Your task to perform on an android device: Open calendar and show me the second week of next month Image 0: 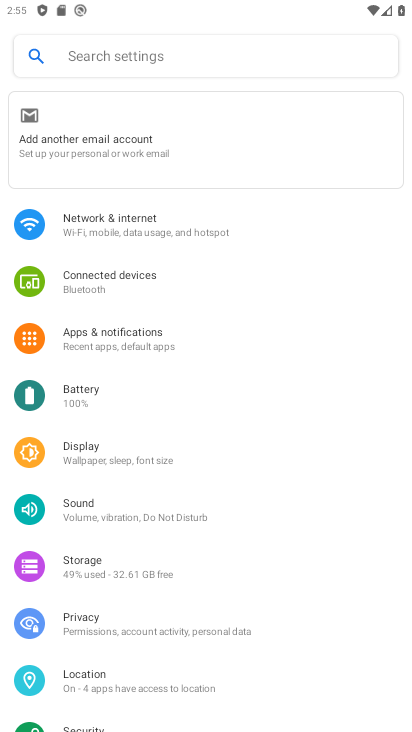
Step 0: press home button
Your task to perform on an android device: Open calendar and show me the second week of next month Image 1: 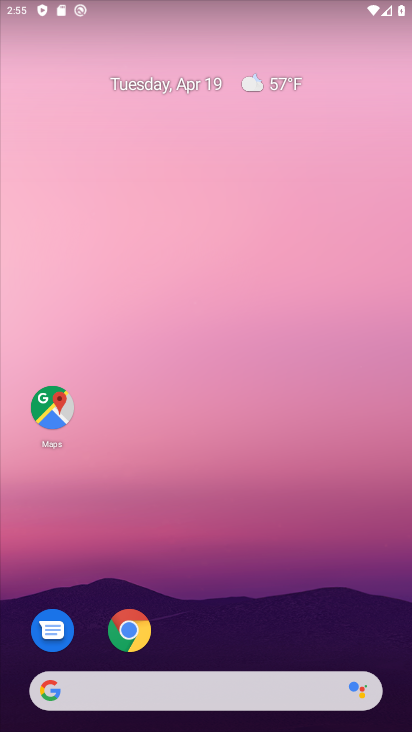
Step 1: drag from (222, 619) to (229, 203)
Your task to perform on an android device: Open calendar and show me the second week of next month Image 2: 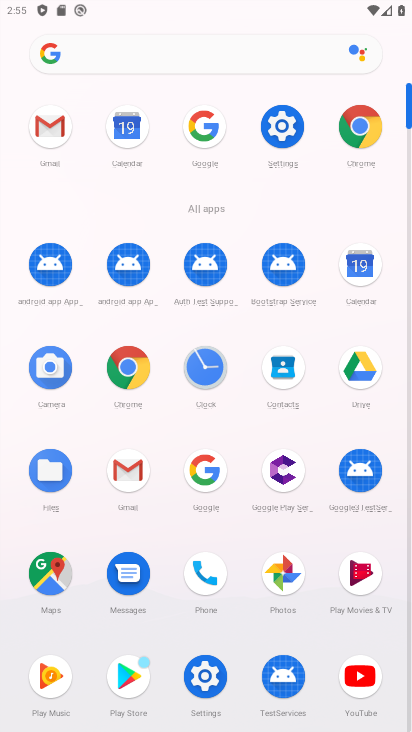
Step 2: click (124, 135)
Your task to perform on an android device: Open calendar and show me the second week of next month Image 3: 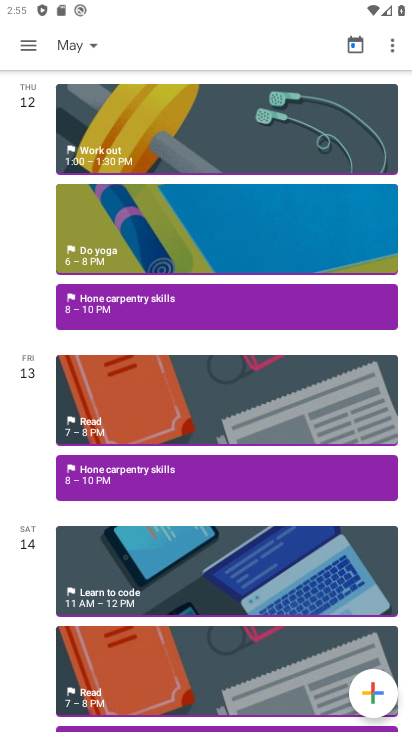
Step 3: click (86, 45)
Your task to perform on an android device: Open calendar and show me the second week of next month Image 4: 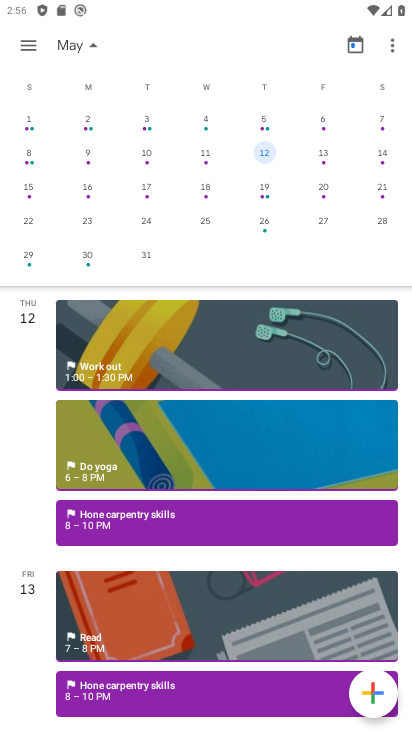
Step 4: drag from (342, 169) to (211, 164)
Your task to perform on an android device: Open calendar and show me the second week of next month Image 5: 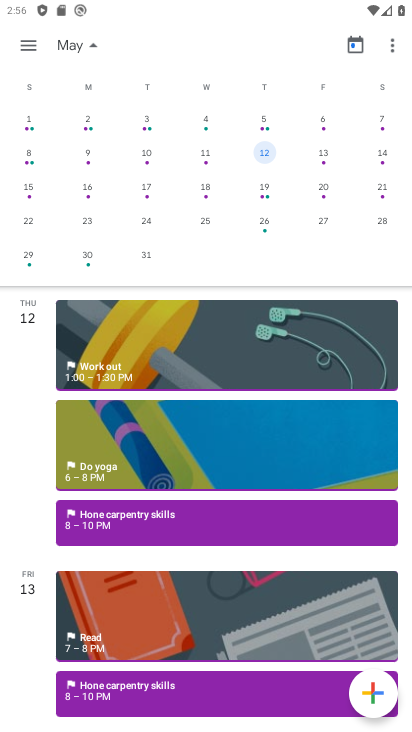
Step 5: click (88, 154)
Your task to perform on an android device: Open calendar and show me the second week of next month Image 6: 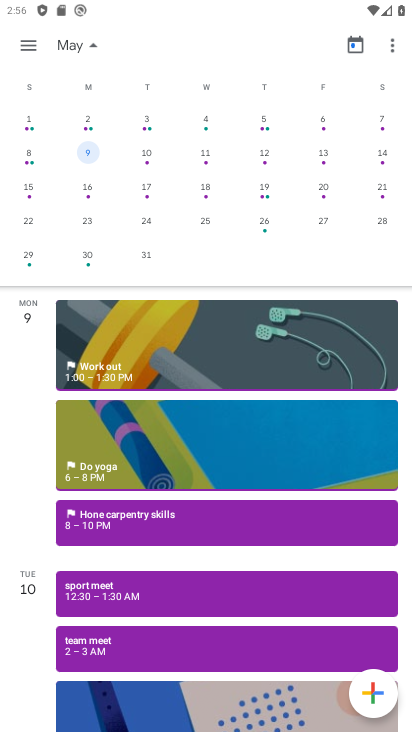
Step 6: click (89, 156)
Your task to perform on an android device: Open calendar and show me the second week of next month Image 7: 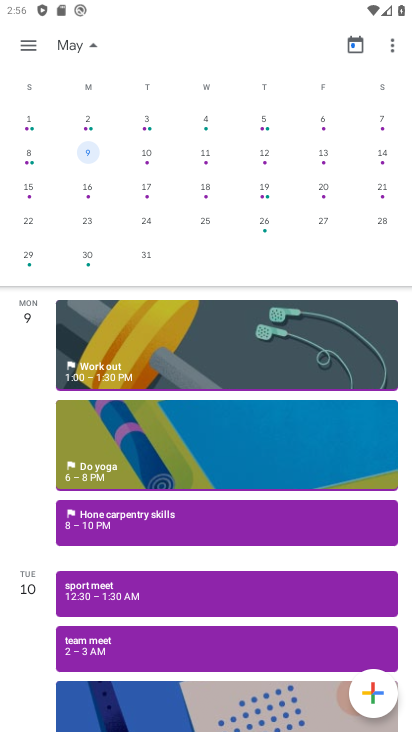
Step 7: task complete